Your task to perform on an android device: Go to Reddit.com Image 0: 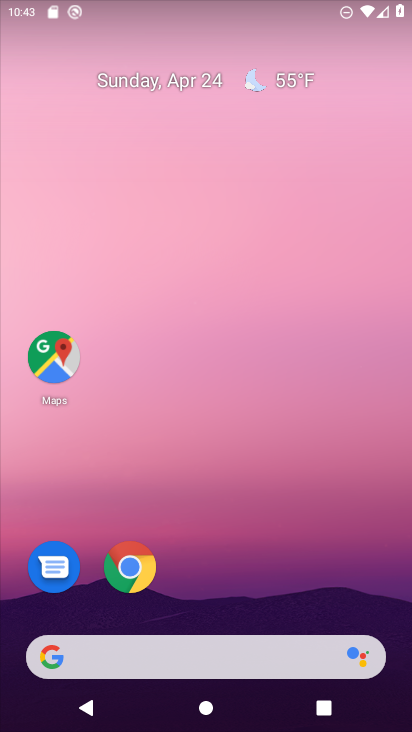
Step 0: click (134, 564)
Your task to perform on an android device: Go to Reddit.com Image 1: 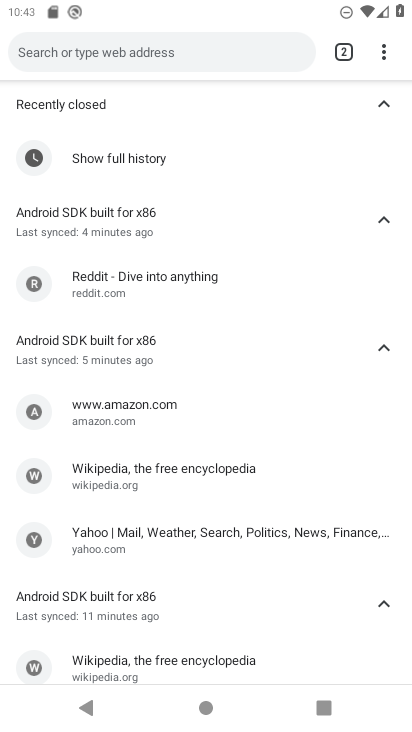
Step 1: click (88, 45)
Your task to perform on an android device: Go to Reddit.com Image 2: 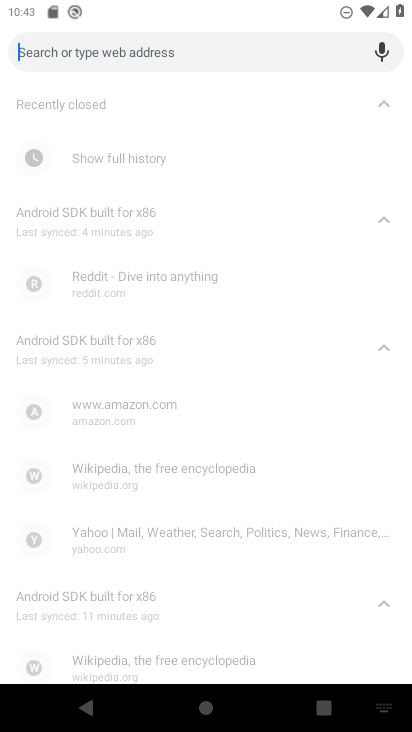
Step 2: type "Reddit.com"
Your task to perform on an android device: Go to Reddit.com Image 3: 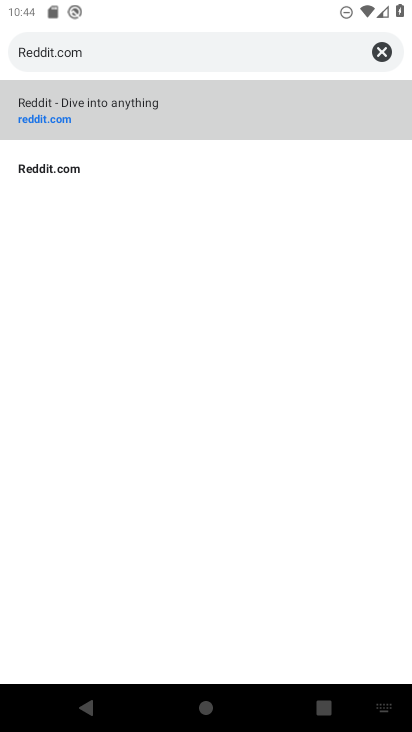
Step 3: click (37, 111)
Your task to perform on an android device: Go to Reddit.com Image 4: 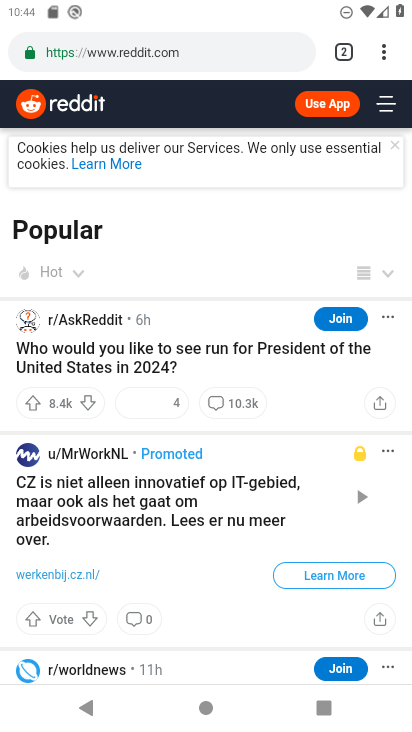
Step 4: task complete